Your task to perform on an android device: Open ESPN.com Image 0: 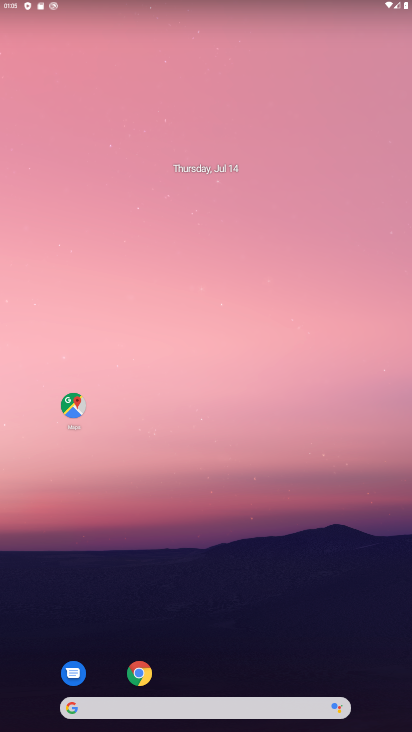
Step 0: click (142, 662)
Your task to perform on an android device: Open ESPN.com Image 1: 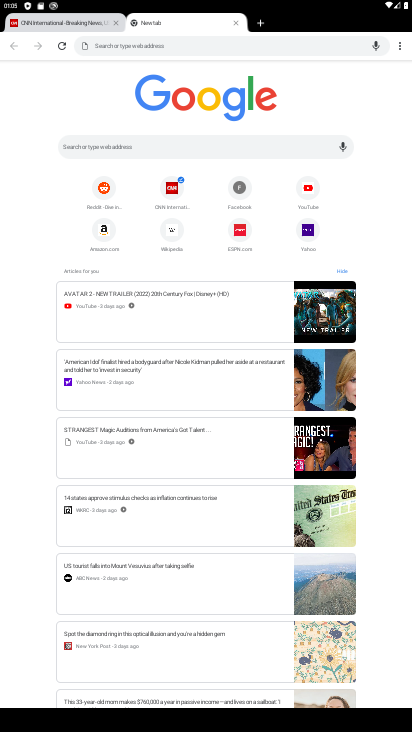
Step 1: click (244, 249)
Your task to perform on an android device: Open ESPN.com Image 2: 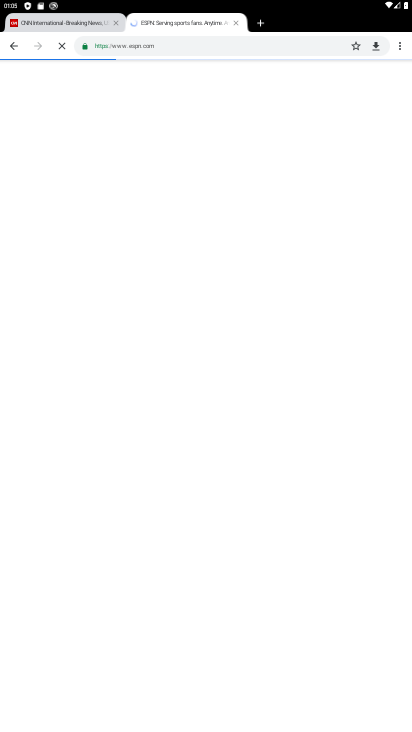
Step 2: task complete